Your task to perform on an android device: set the stopwatch Image 0: 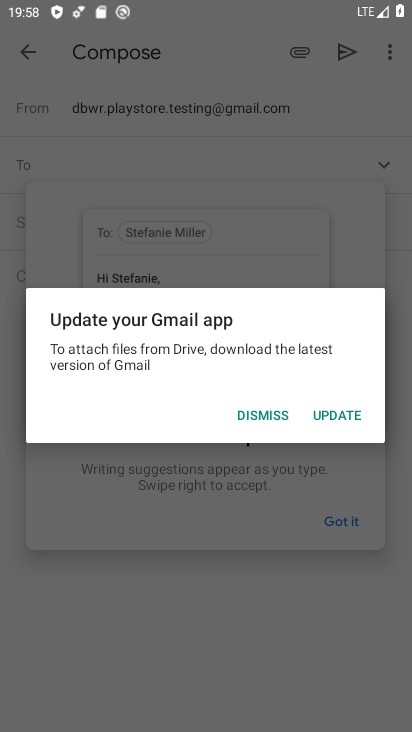
Step 0: press home button
Your task to perform on an android device: set the stopwatch Image 1: 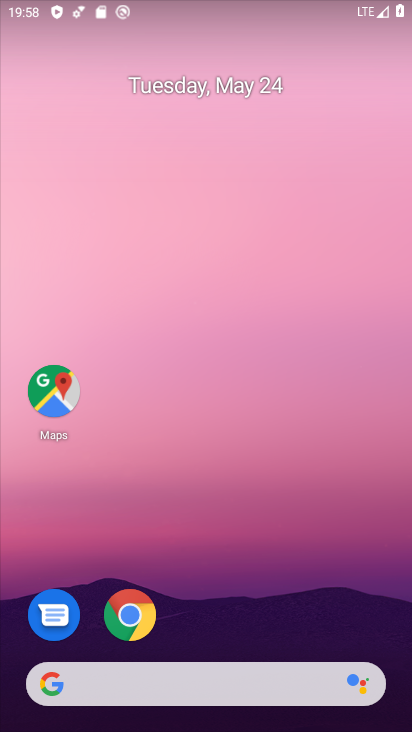
Step 1: drag from (246, 607) to (261, 332)
Your task to perform on an android device: set the stopwatch Image 2: 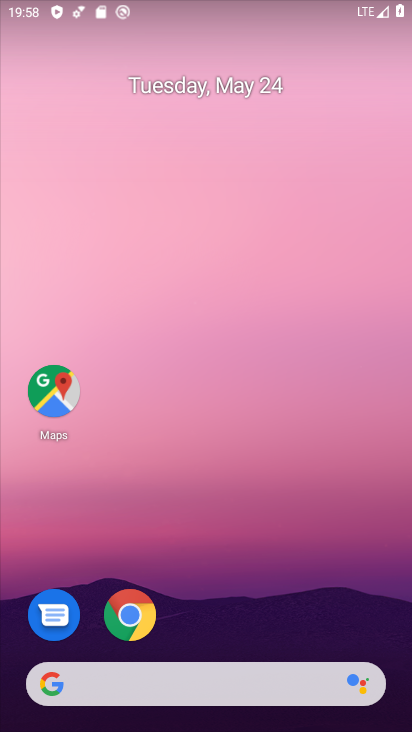
Step 2: drag from (222, 626) to (201, 330)
Your task to perform on an android device: set the stopwatch Image 3: 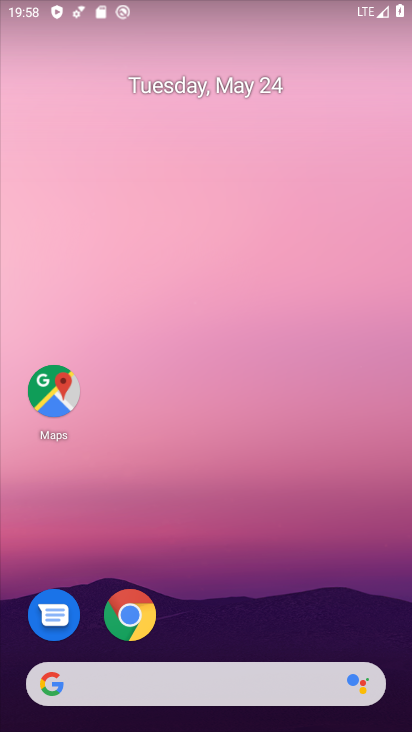
Step 3: drag from (273, 481) to (268, 272)
Your task to perform on an android device: set the stopwatch Image 4: 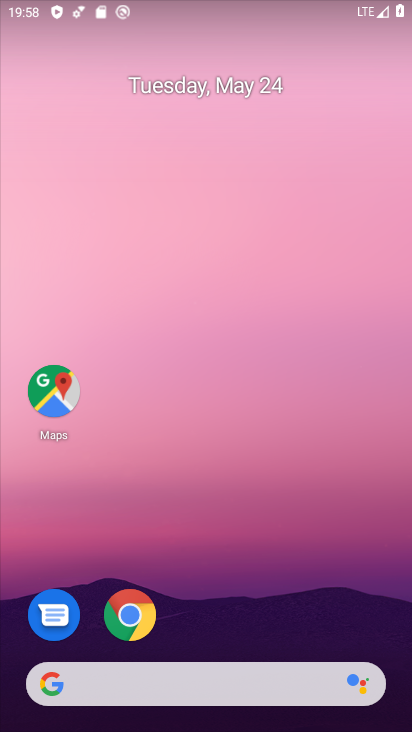
Step 4: drag from (243, 613) to (239, 265)
Your task to perform on an android device: set the stopwatch Image 5: 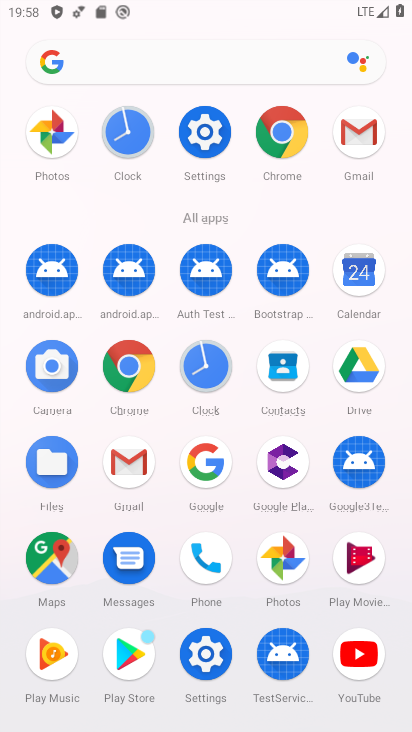
Step 5: click (198, 359)
Your task to perform on an android device: set the stopwatch Image 6: 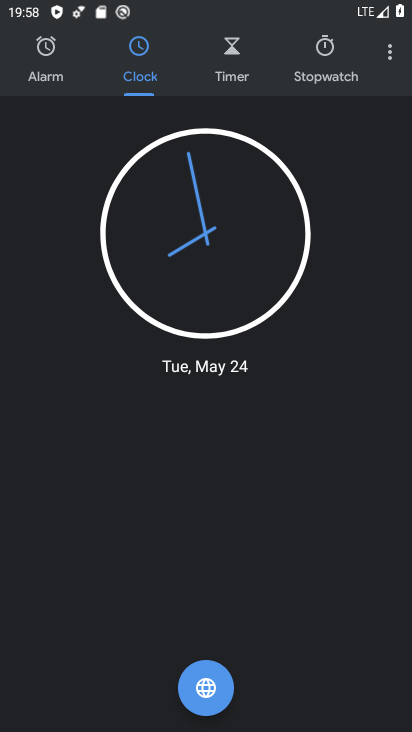
Step 6: click (307, 67)
Your task to perform on an android device: set the stopwatch Image 7: 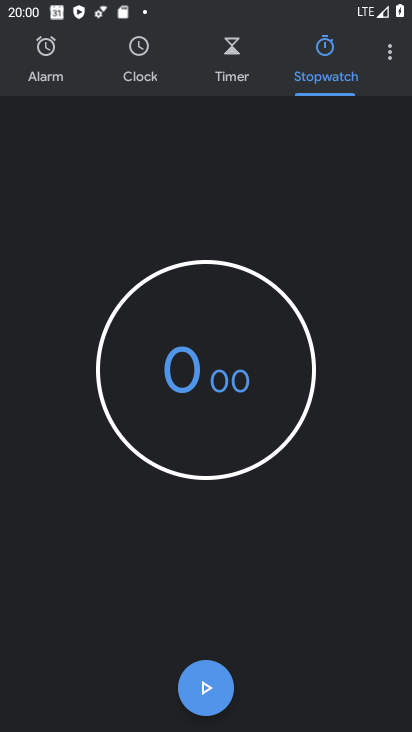
Step 7: task complete